Your task to perform on an android device: open chrome privacy settings Image 0: 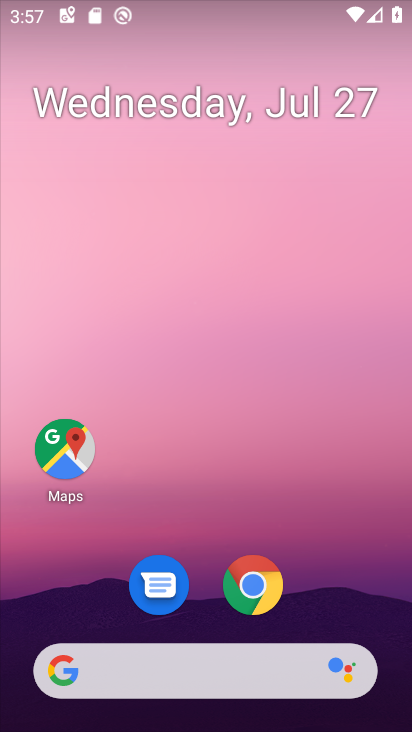
Step 0: click (269, 569)
Your task to perform on an android device: open chrome privacy settings Image 1: 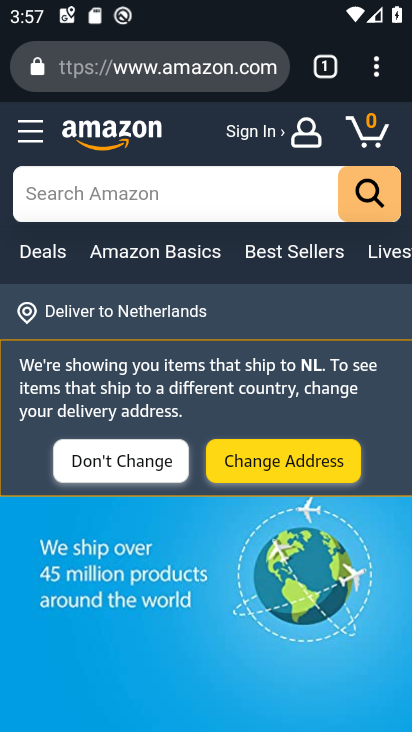
Step 1: click (380, 70)
Your task to perform on an android device: open chrome privacy settings Image 2: 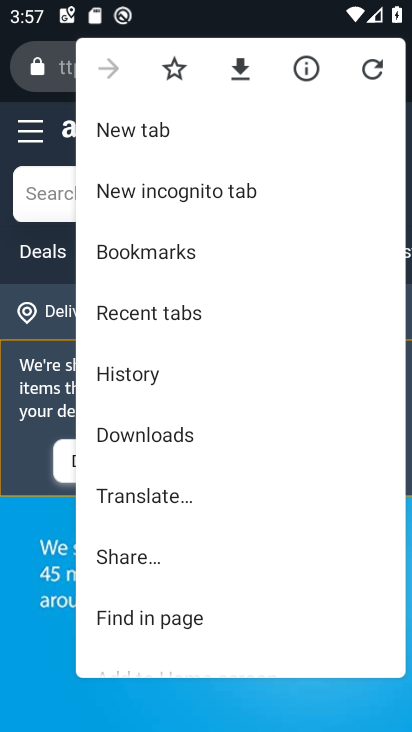
Step 2: drag from (243, 552) to (230, 137)
Your task to perform on an android device: open chrome privacy settings Image 3: 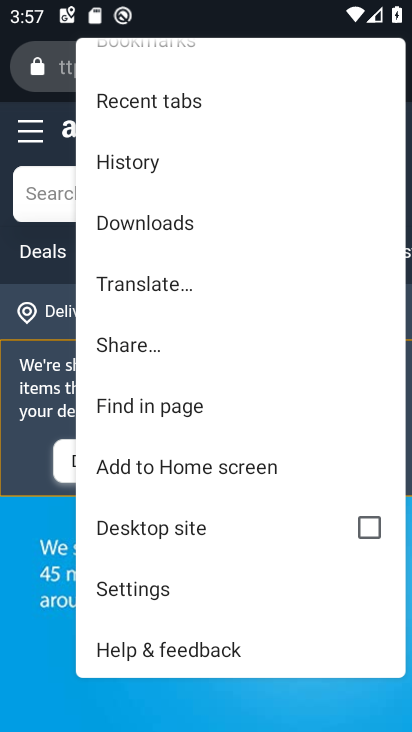
Step 3: click (155, 585)
Your task to perform on an android device: open chrome privacy settings Image 4: 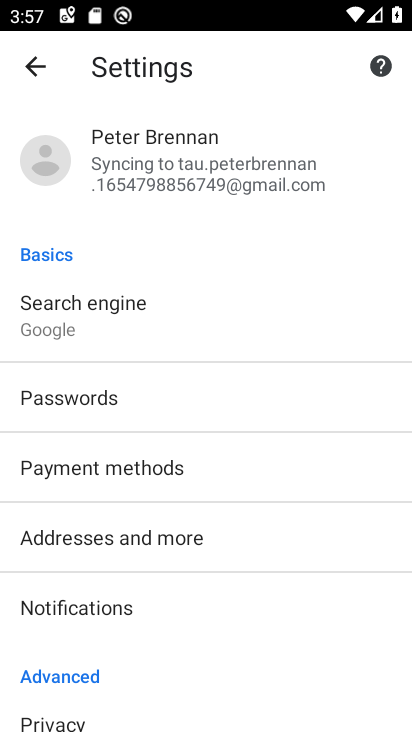
Step 4: drag from (266, 594) to (252, 303)
Your task to perform on an android device: open chrome privacy settings Image 5: 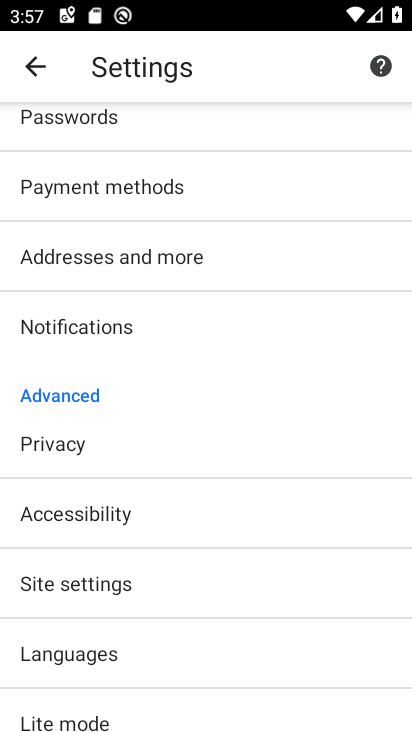
Step 5: click (69, 440)
Your task to perform on an android device: open chrome privacy settings Image 6: 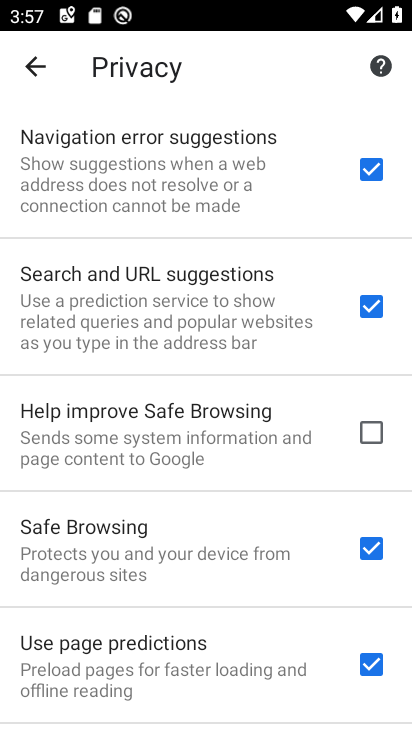
Step 6: task complete